Your task to perform on an android device: Search for Mexican restaurants on Maps Image 0: 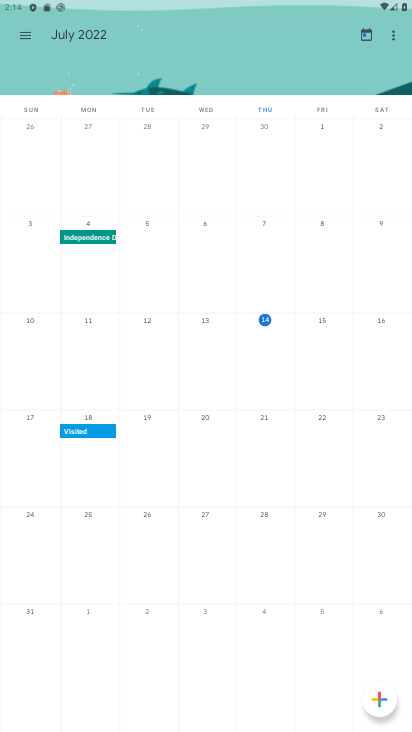
Step 0: press home button
Your task to perform on an android device: Search for Mexican restaurants on Maps Image 1: 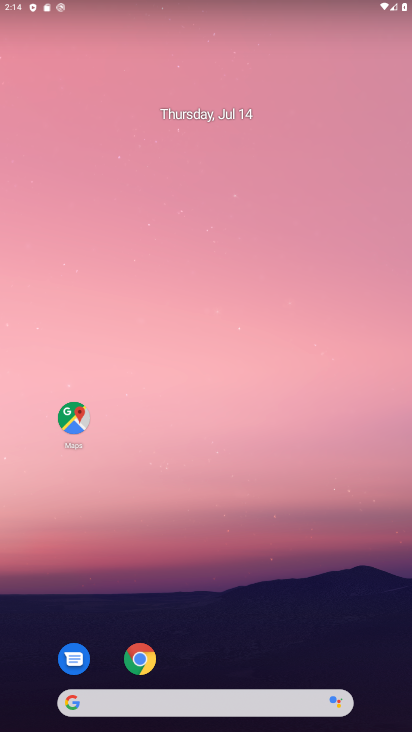
Step 1: drag from (241, 657) to (273, 117)
Your task to perform on an android device: Search for Mexican restaurants on Maps Image 2: 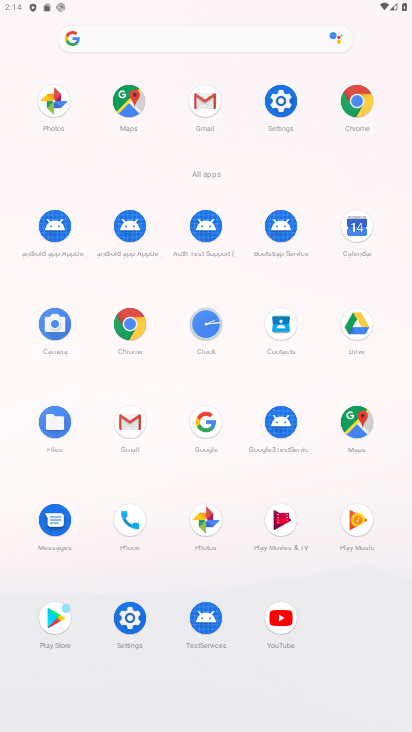
Step 2: click (356, 419)
Your task to perform on an android device: Search for Mexican restaurants on Maps Image 3: 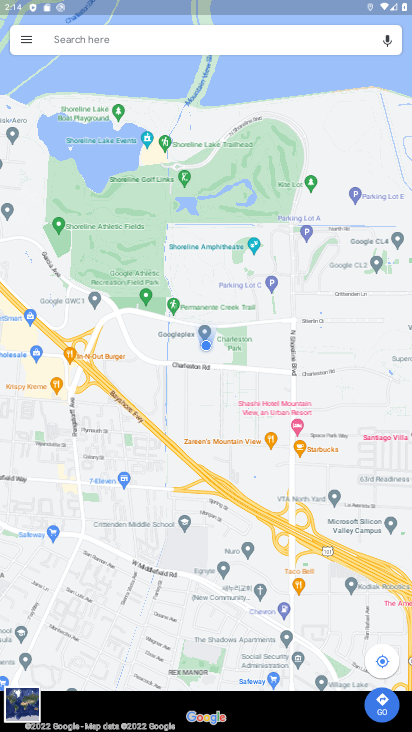
Step 3: click (125, 48)
Your task to perform on an android device: Search for Mexican restaurants on Maps Image 4: 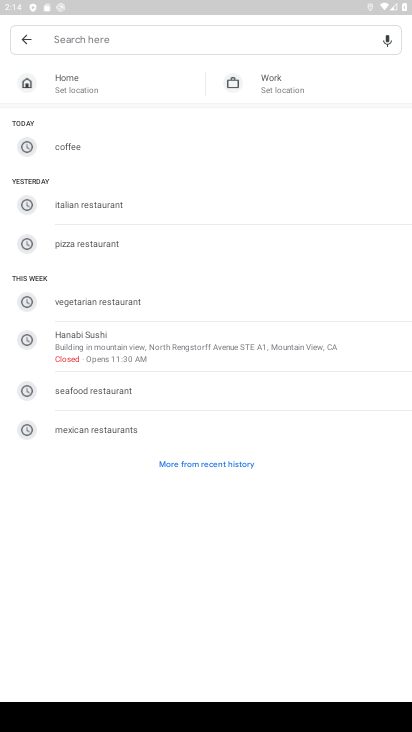
Step 4: click (93, 429)
Your task to perform on an android device: Search for Mexican restaurants on Maps Image 5: 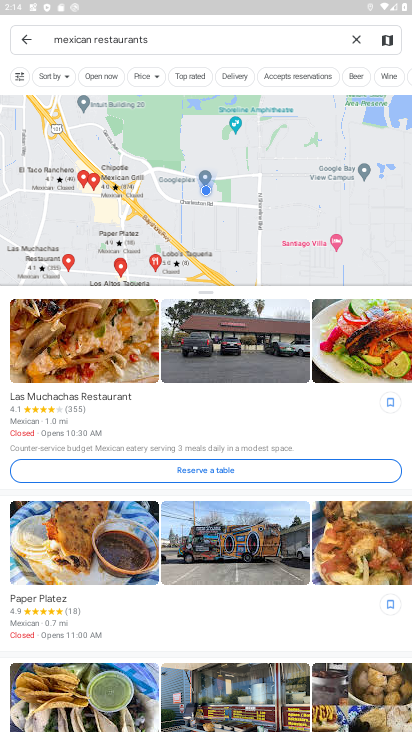
Step 5: task complete